Your task to perform on an android device: Open battery settings Image 0: 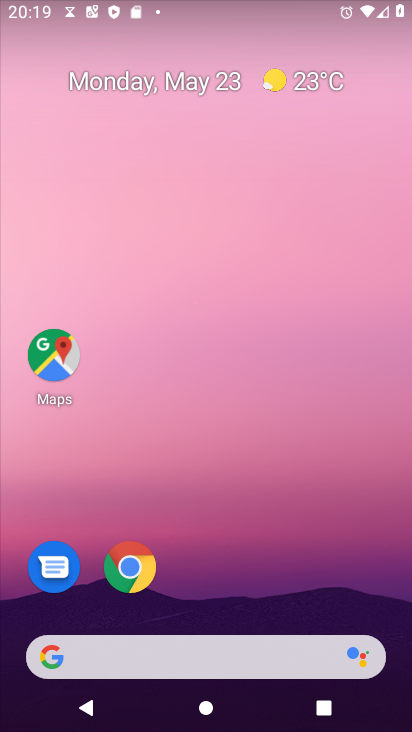
Step 0: drag from (230, 573) to (248, 299)
Your task to perform on an android device: Open battery settings Image 1: 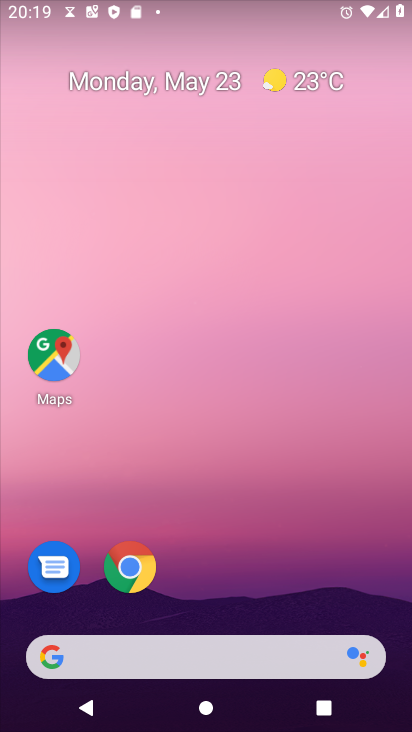
Step 1: drag from (224, 615) to (248, 223)
Your task to perform on an android device: Open battery settings Image 2: 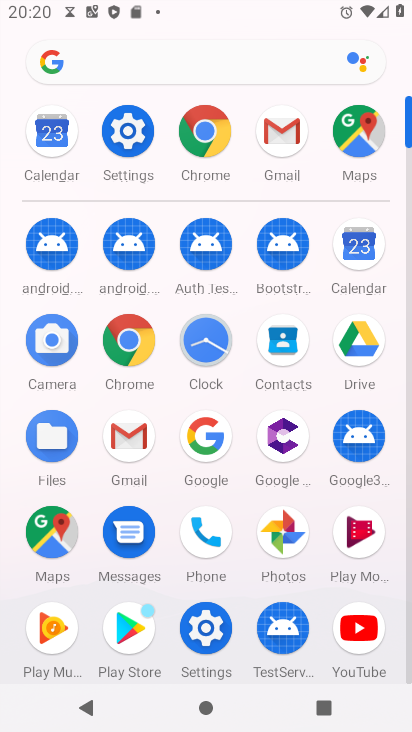
Step 2: click (119, 144)
Your task to perform on an android device: Open battery settings Image 3: 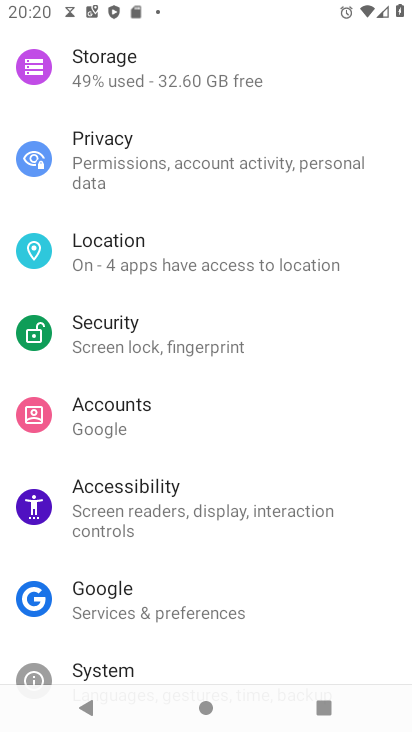
Step 3: drag from (237, 175) to (186, 545)
Your task to perform on an android device: Open battery settings Image 4: 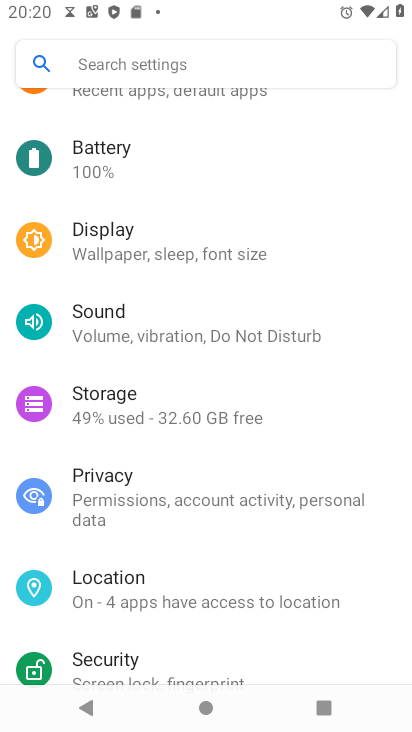
Step 4: drag from (268, 139) to (256, 655)
Your task to perform on an android device: Open battery settings Image 5: 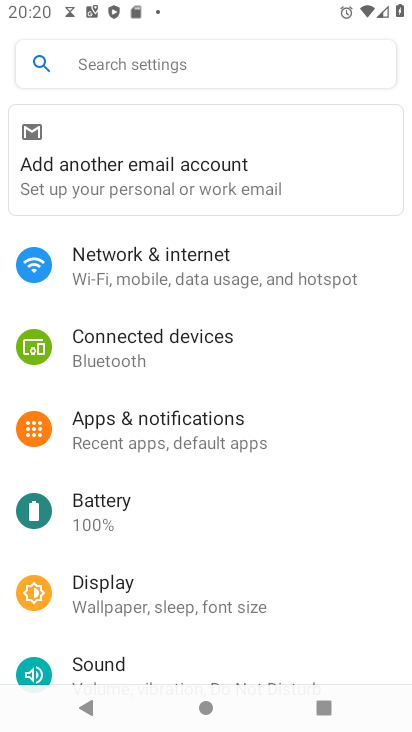
Step 5: click (155, 512)
Your task to perform on an android device: Open battery settings Image 6: 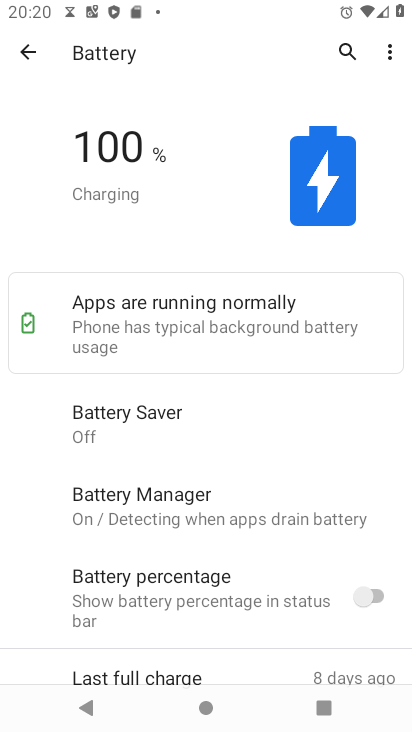
Step 6: task complete